Your task to perform on an android device: turn vacation reply on in the gmail app Image 0: 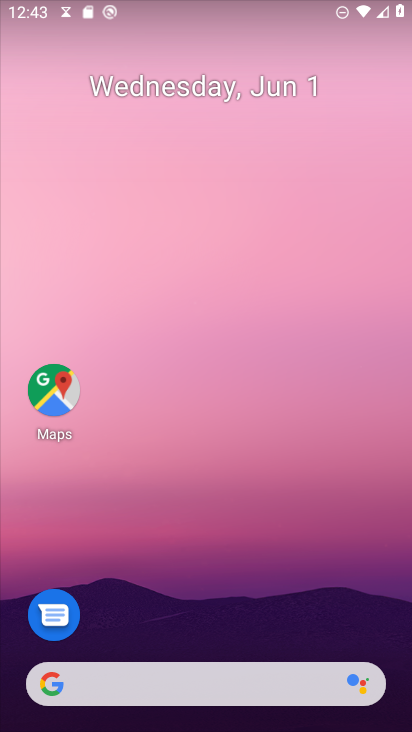
Step 0: press home button
Your task to perform on an android device: turn vacation reply on in the gmail app Image 1: 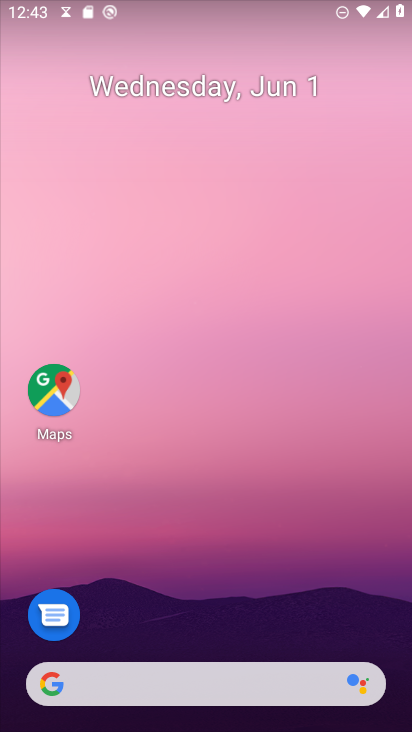
Step 1: drag from (273, 610) to (320, 141)
Your task to perform on an android device: turn vacation reply on in the gmail app Image 2: 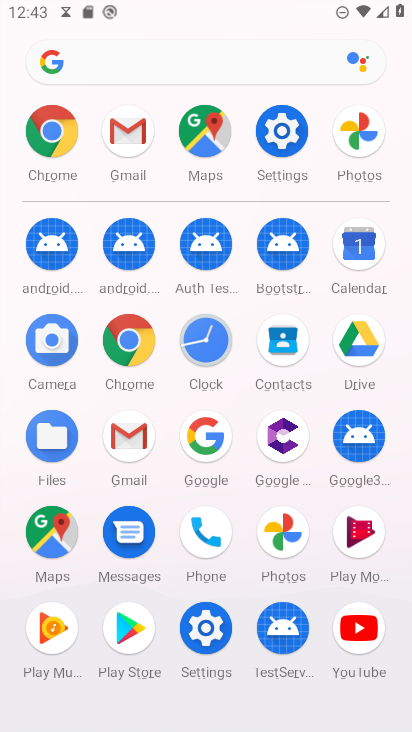
Step 2: click (123, 444)
Your task to perform on an android device: turn vacation reply on in the gmail app Image 3: 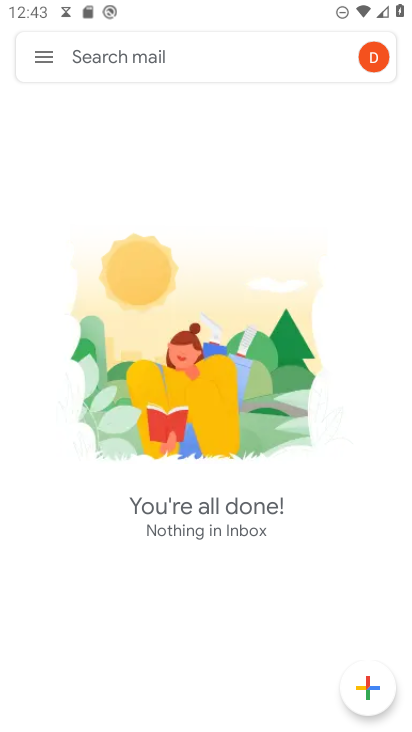
Step 3: click (363, 62)
Your task to perform on an android device: turn vacation reply on in the gmail app Image 4: 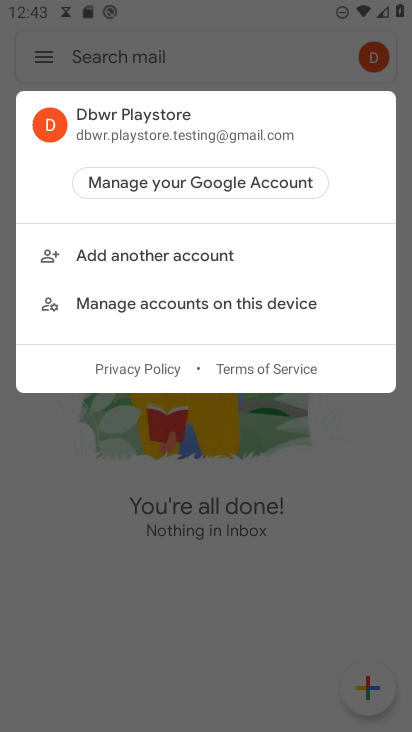
Step 4: click (156, 456)
Your task to perform on an android device: turn vacation reply on in the gmail app Image 5: 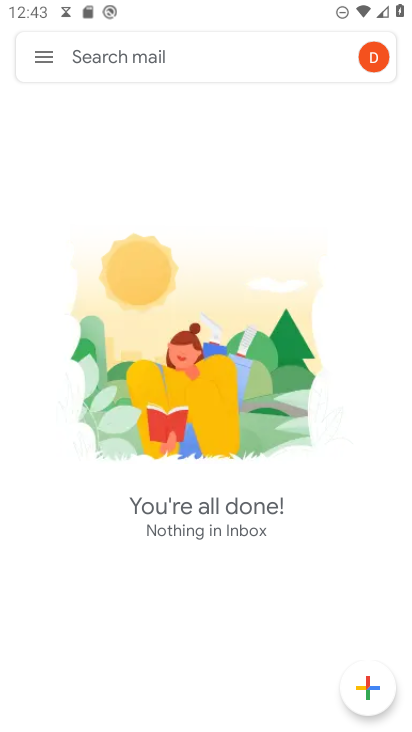
Step 5: click (49, 62)
Your task to perform on an android device: turn vacation reply on in the gmail app Image 6: 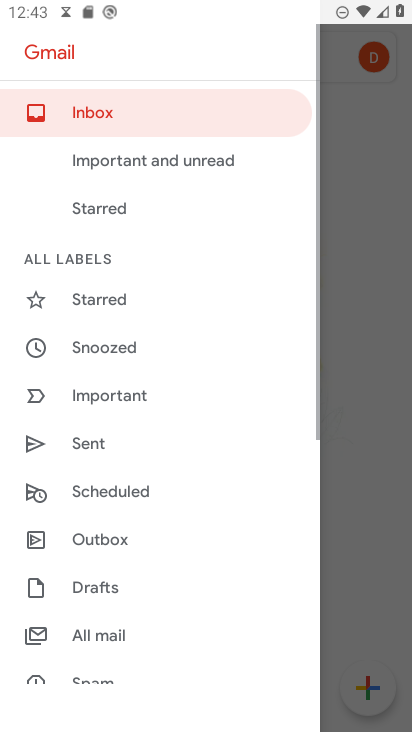
Step 6: drag from (160, 618) to (201, 314)
Your task to perform on an android device: turn vacation reply on in the gmail app Image 7: 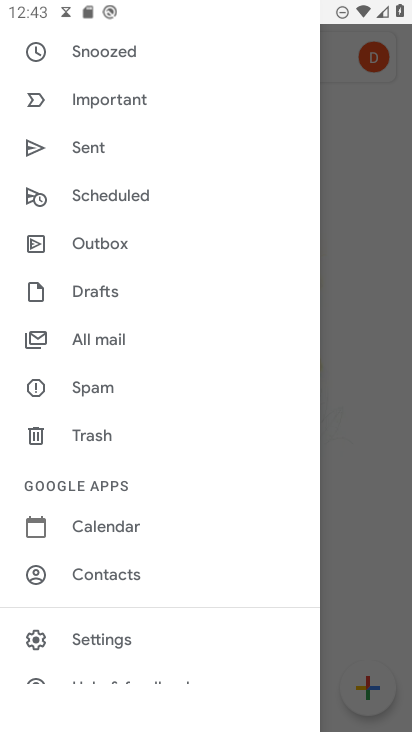
Step 7: click (116, 640)
Your task to perform on an android device: turn vacation reply on in the gmail app Image 8: 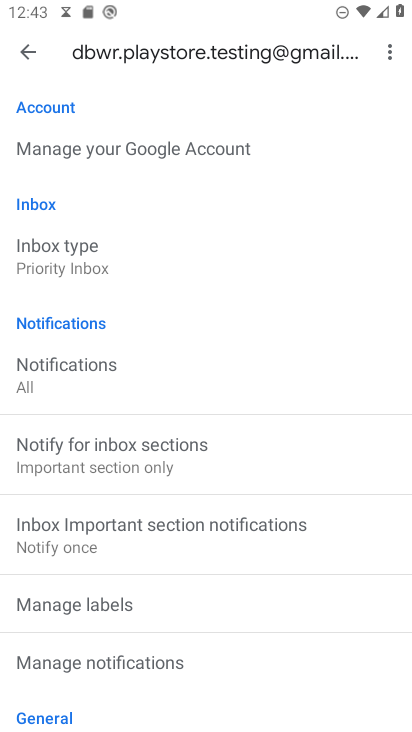
Step 8: drag from (261, 667) to (250, 267)
Your task to perform on an android device: turn vacation reply on in the gmail app Image 9: 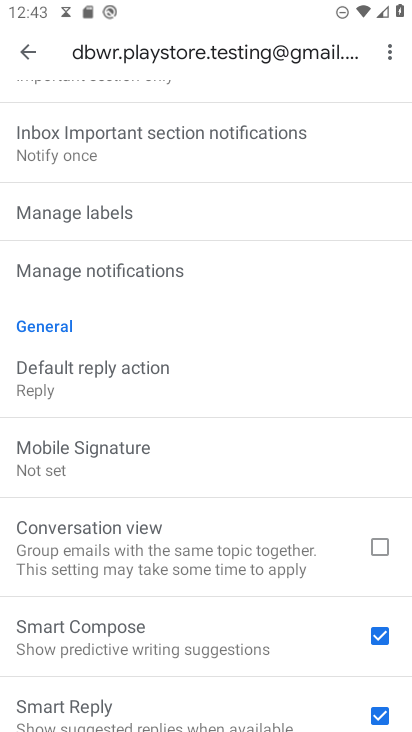
Step 9: drag from (259, 515) to (287, 358)
Your task to perform on an android device: turn vacation reply on in the gmail app Image 10: 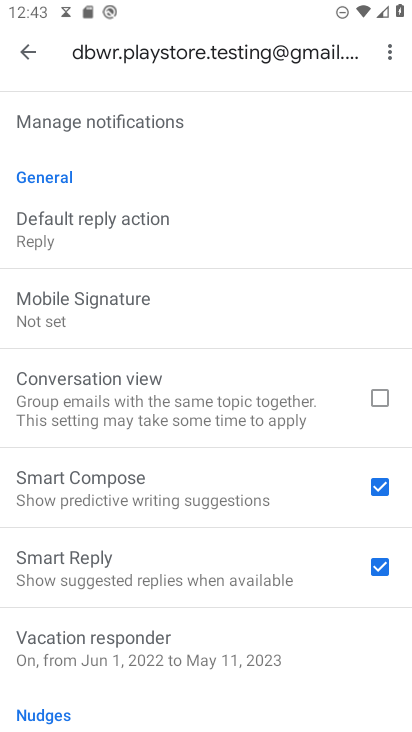
Step 10: click (176, 221)
Your task to perform on an android device: turn vacation reply on in the gmail app Image 11: 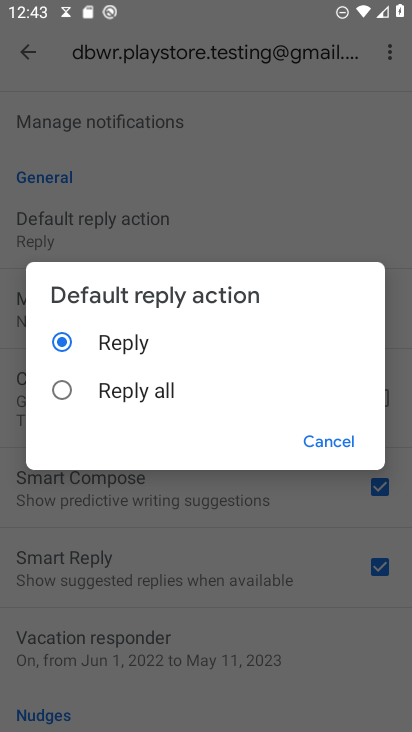
Step 11: click (279, 198)
Your task to perform on an android device: turn vacation reply on in the gmail app Image 12: 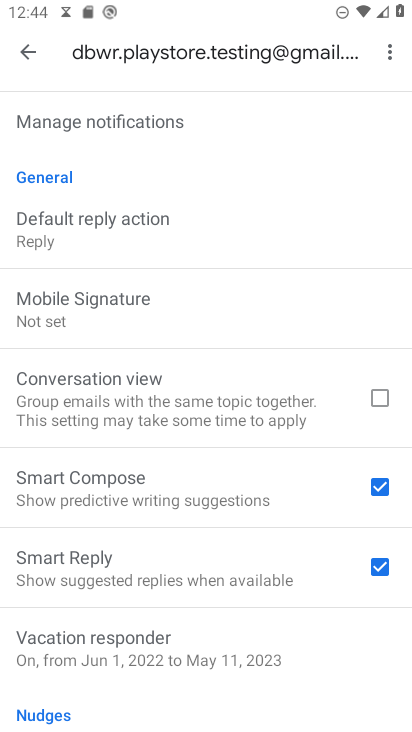
Step 12: click (160, 625)
Your task to perform on an android device: turn vacation reply on in the gmail app Image 13: 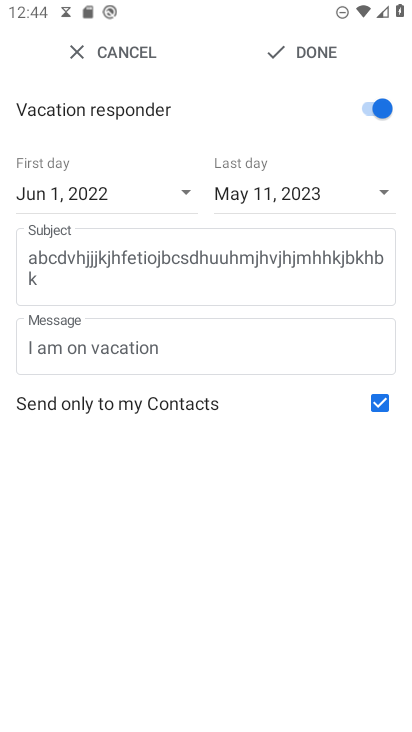
Step 13: task complete